Your task to perform on an android device: turn on sleep mode Image 0: 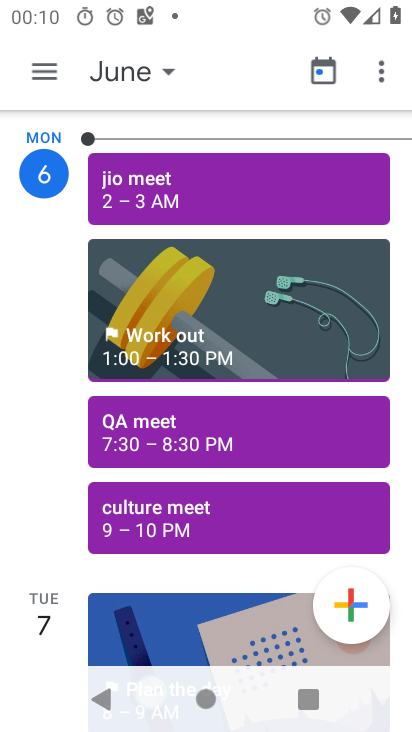
Step 0: press home button
Your task to perform on an android device: turn on sleep mode Image 1: 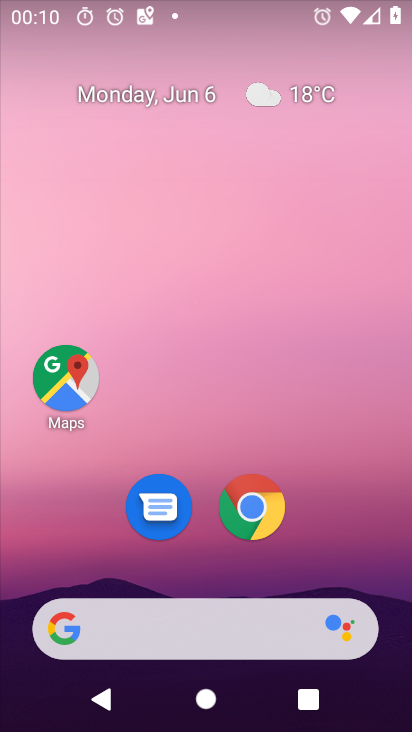
Step 1: drag from (232, 717) to (232, 63)
Your task to perform on an android device: turn on sleep mode Image 2: 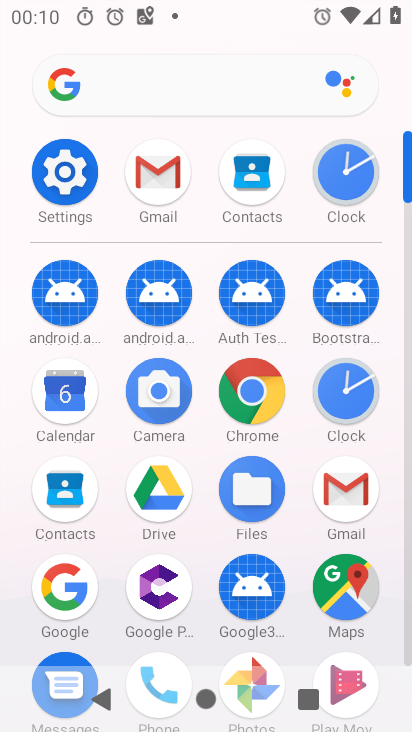
Step 2: click (66, 176)
Your task to perform on an android device: turn on sleep mode Image 3: 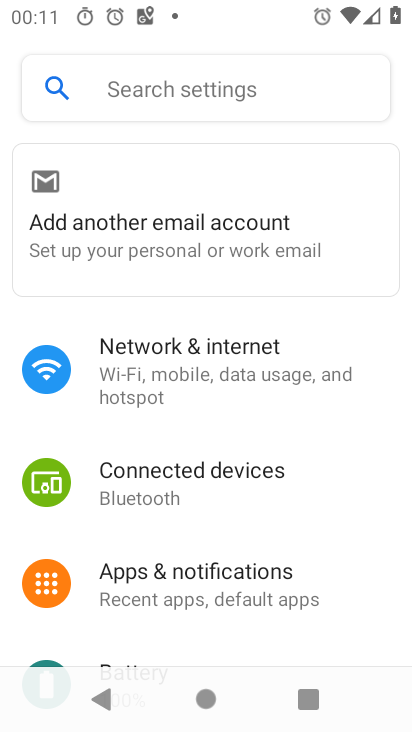
Step 3: drag from (216, 652) to (186, 213)
Your task to perform on an android device: turn on sleep mode Image 4: 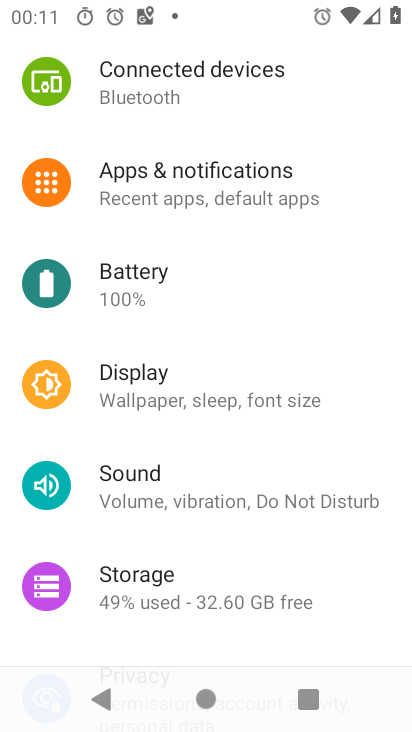
Step 4: drag from (243, 618) to (221, 213)
Your task to perform on an android device: turn on sleep mode Image 5: 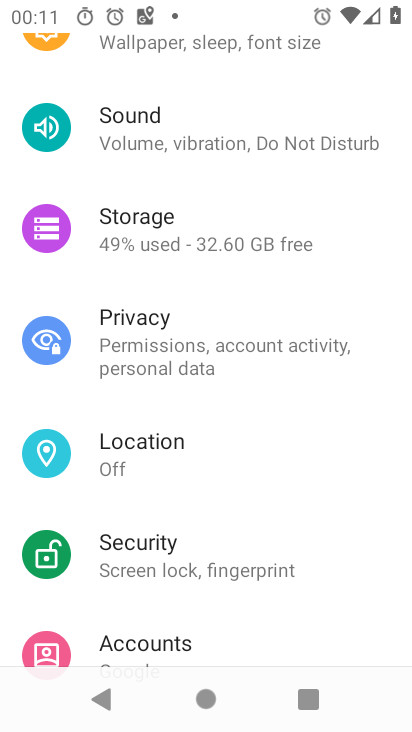
Step 5: drag from (235, 634) to (223, 206)
Your task to perform on an android device: turn on sleep mode Image 6: 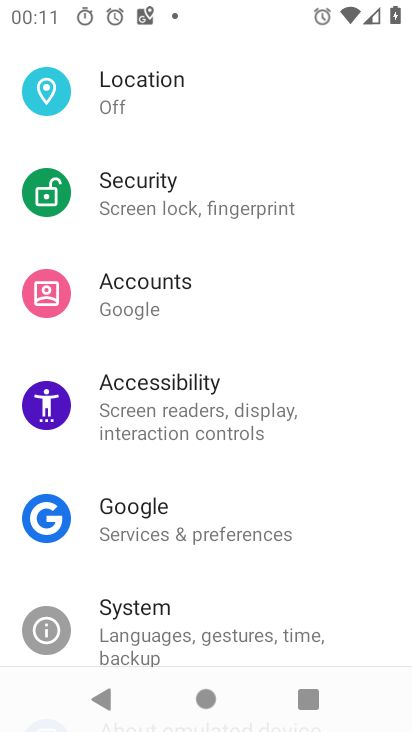
Step 6: drag from (171, 665) to (171, 218)
Your task to perform on an android device: turn on sleep mode Image 7: 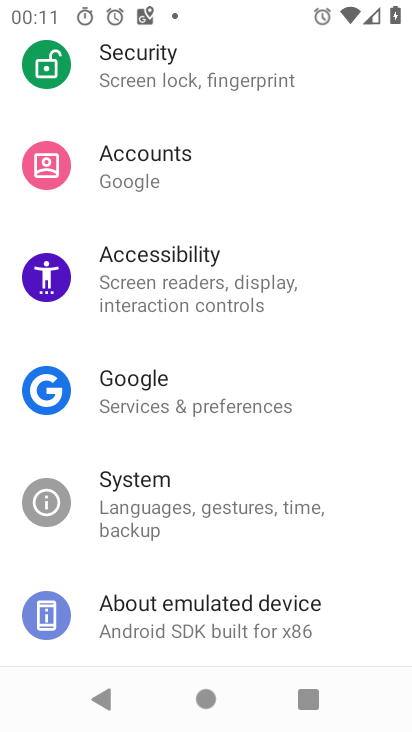
Step 7: drag from (257, 166) to (278, 493)
Your task to perform on an android device: turn on sleep mode Image 8: 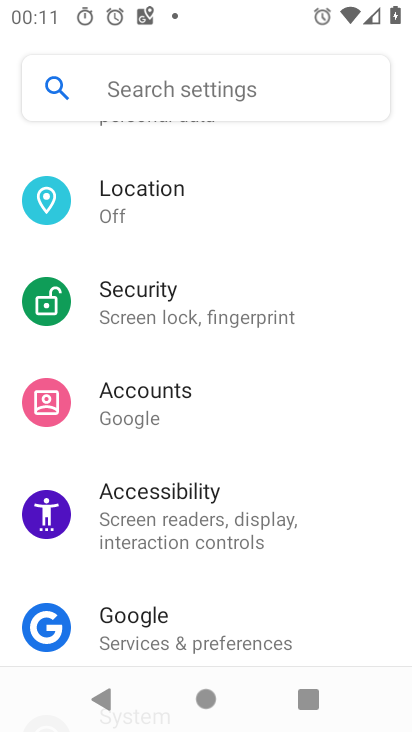
Step 8: drag from (267, 375) to (279, 553)
Your task to perform on an android device: turn on sleep mode Image 9: 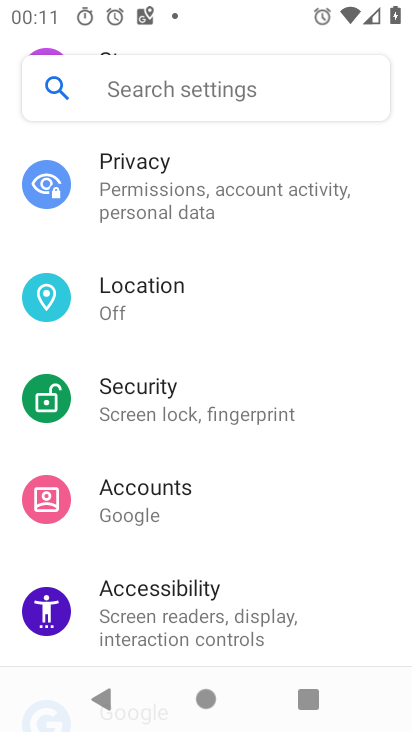
Step 9: drag from (212, 163) to (232, 573)
Your task to perform on an android device: turn on sleep mode Image 10: 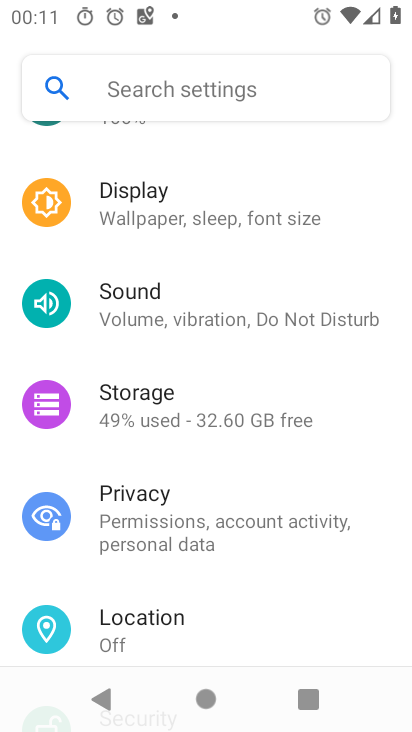
Step 10: click (241, 221)
Your task to perform on an android device: turn on sleep mode Image 11: 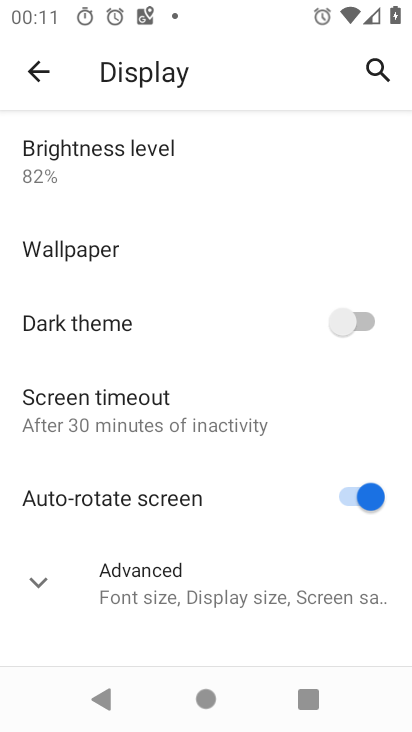
Step 11: task complete